Your task to perform on an android device: find photos in the google photos app Image 0: 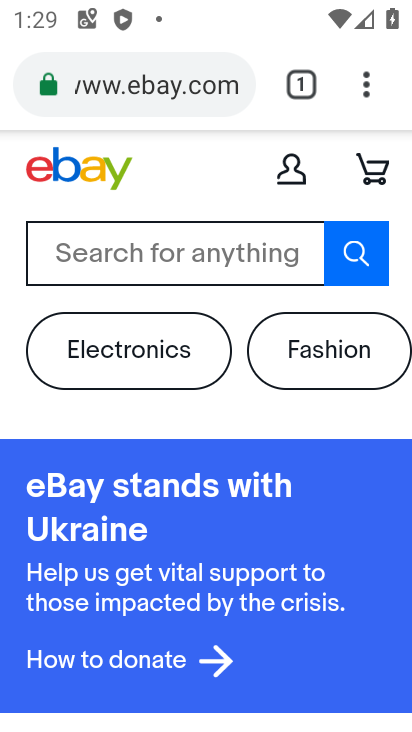
Step 0: press home button
Your task to perform on an android device: find photos in the google photos app Image 1: 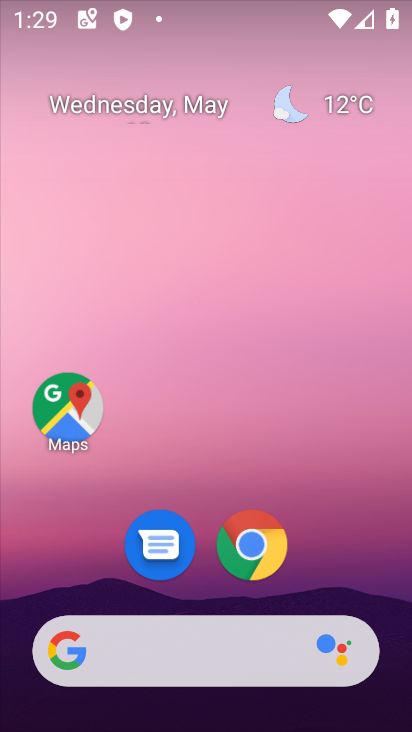
Step 1: drag from (347, 592) to (349, 22)
Your task to perform on an android device: find photos in the google photos app Image 2: 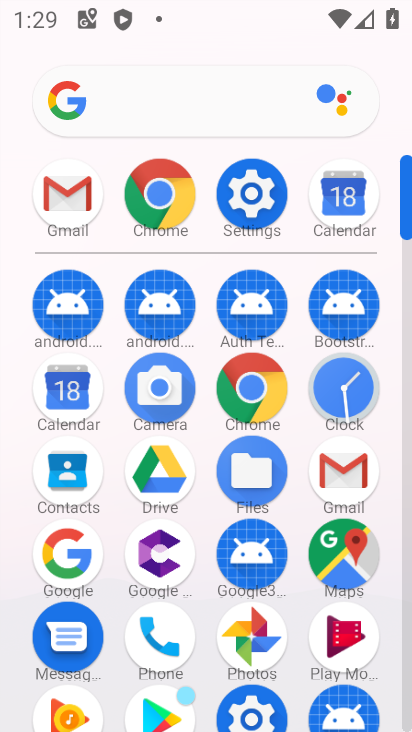
Step 2: click (253, 641)
Your task to perform on an android device: find photos in the google photos app Image 3: 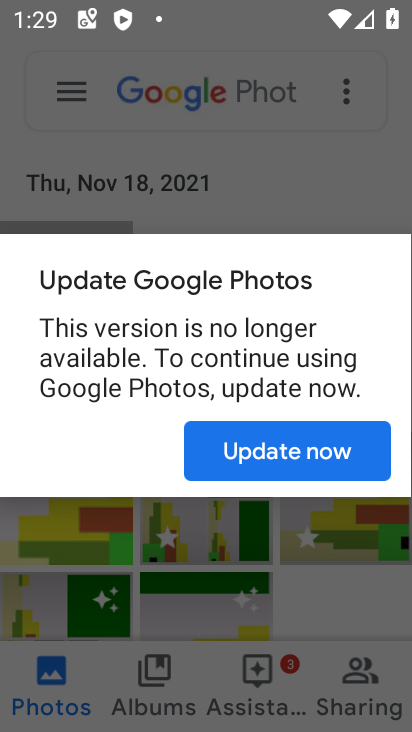
Step 3: click (268, 465)
Your task to perform on an android device: find photos in the google photos app Image 4: 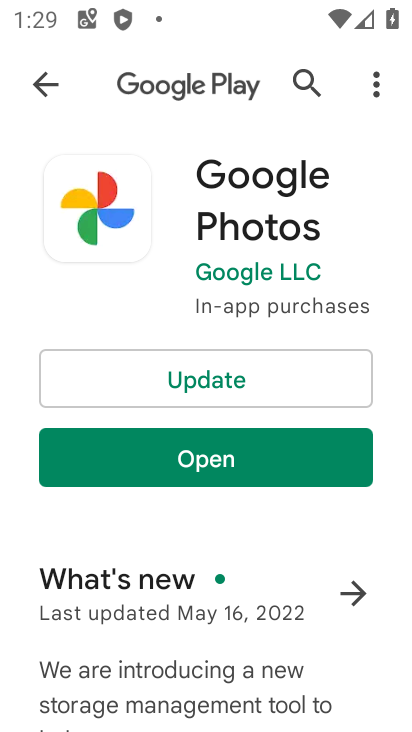
Step 4: click (265, 430)
Your task to perform on an android device: find photos in the google photos app Image 5: 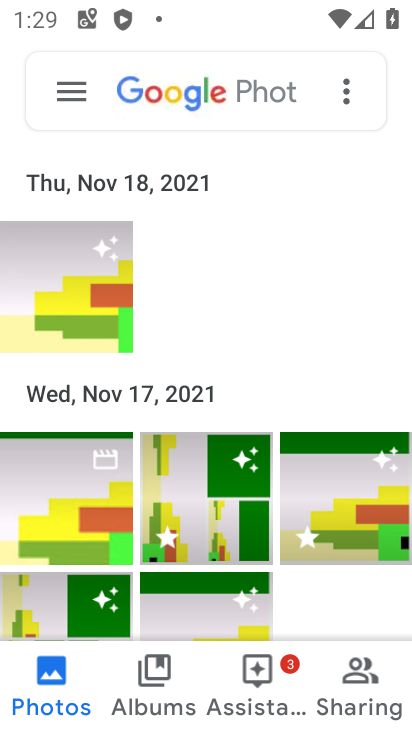
Step 5: task complete